Your task to perform on an android device: turn off improve location accuracy Image 0: 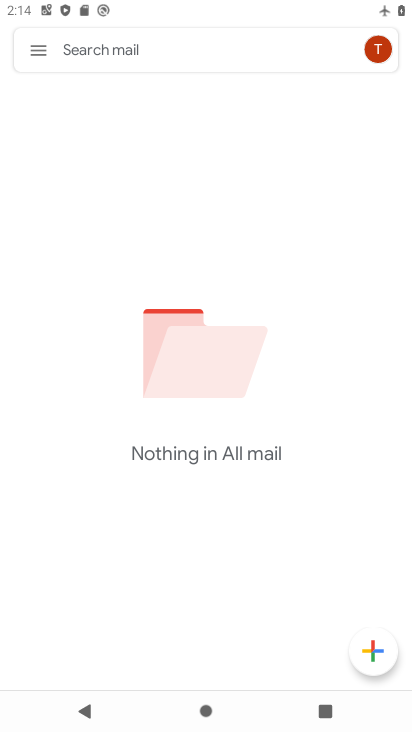
Step 0: press home button
Your task to perform on an android device: turn off improve location accuracy Image 1: 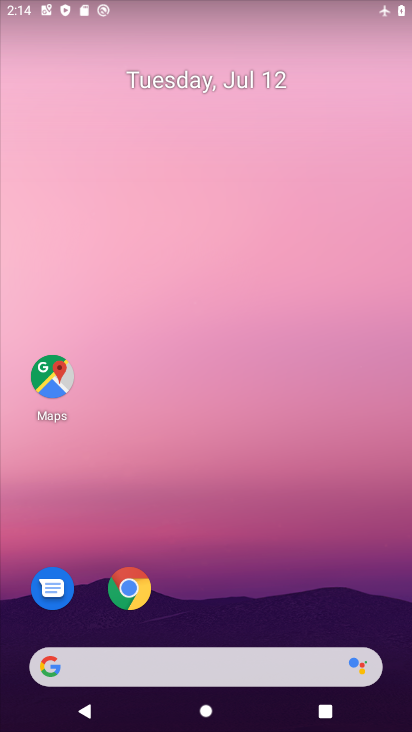
Step 1: drag from (213, 647) to (212, 8)
Your task to perform on an android device: turn off improve location accuracy Image 2: 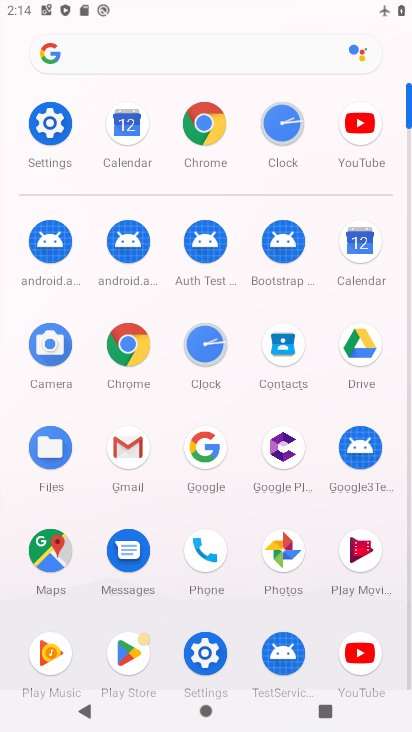
Step 2: click (60, 118)
Your task to perform on an android device: turn off improve location accuracy Image 3: 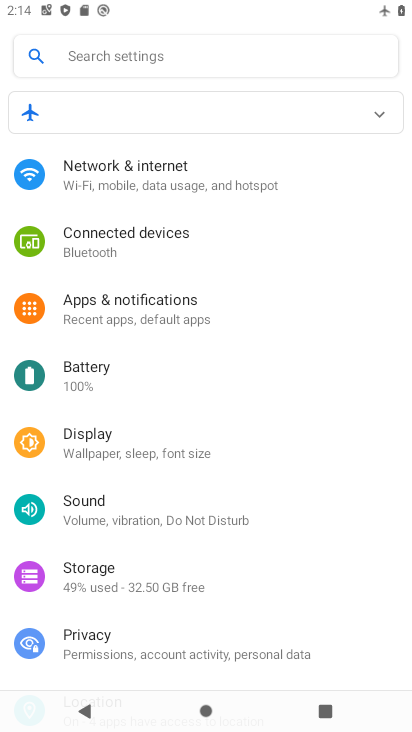
Step 3: drag from (123, 615) to (117, 77)
Your task to perform on an android device: turn off improve location accuracy Image 4: 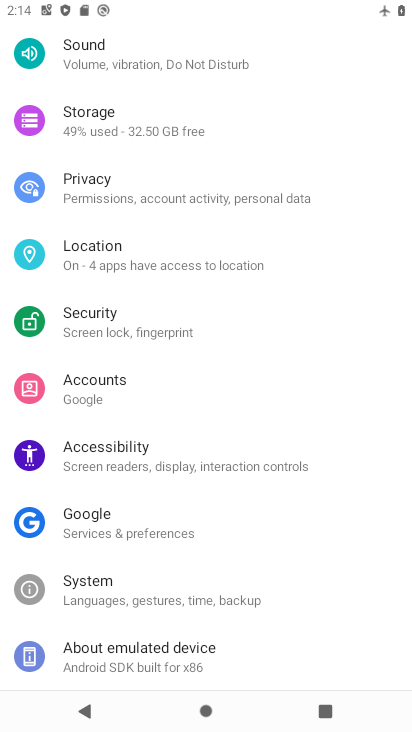
Step 4: click (130, 262)
Your task to perform on an android device: turn off improve location accuracy Image 5: 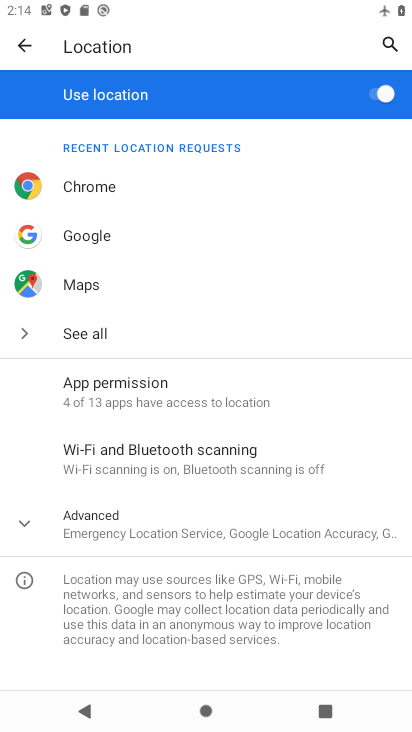
Step 5: click (111, 511)
Your task to perform on an android device: turn off improve location accuracy Image 6: 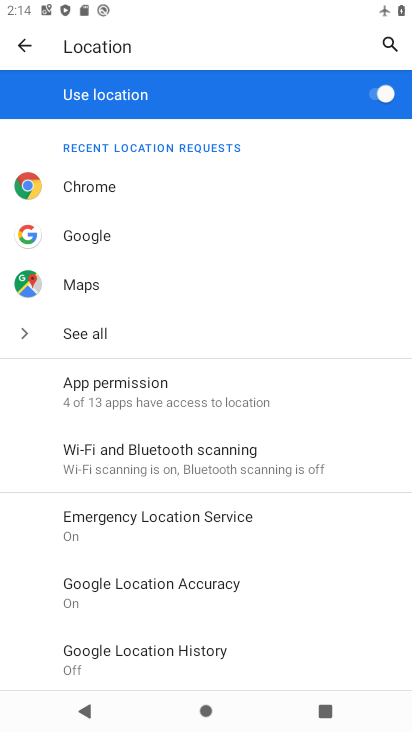
Step 6: click (130, 579)
Your task to perform on an android device: turn off improve location accuracy Image 7: 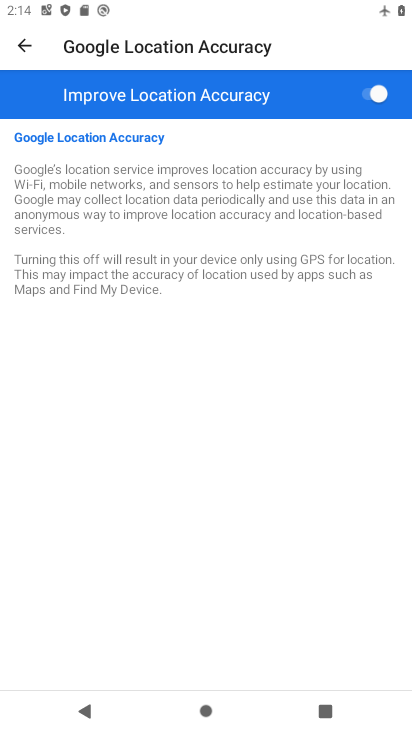
Step 7: click (374, 96)
Your task to perform on an android device: turn off improve location accuracy Image 8: 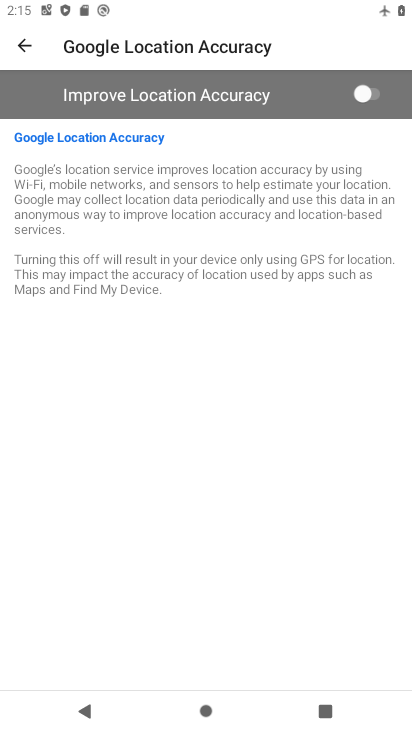
Step 8: task complete